Your task to perform on an android device: What's the news this week? Image 0: 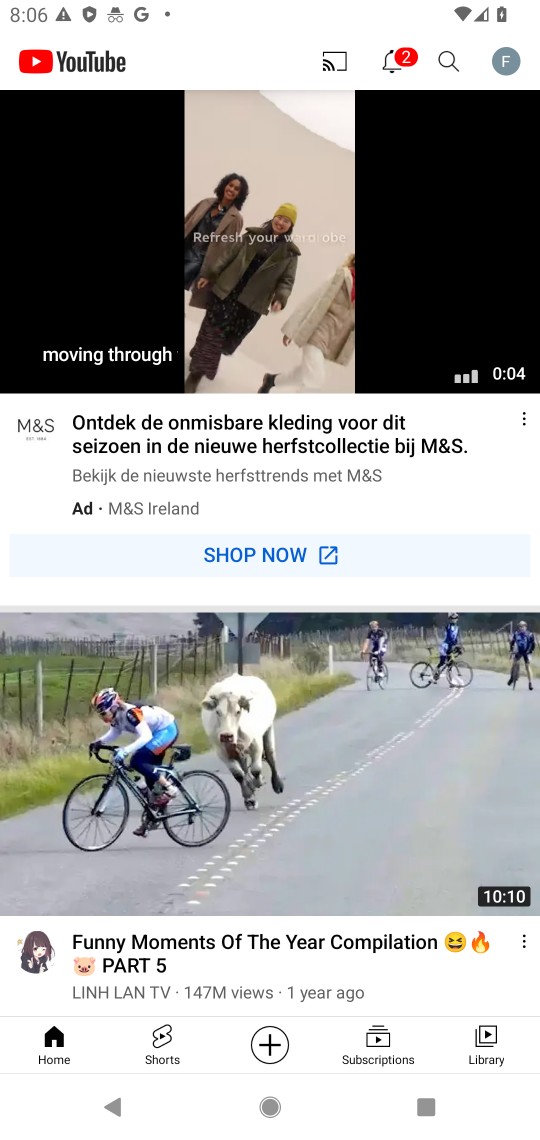
Step 0: drag from (449, 717) to (449, 530)
Your task to perform on an android device: What's the news this week? Image 1: 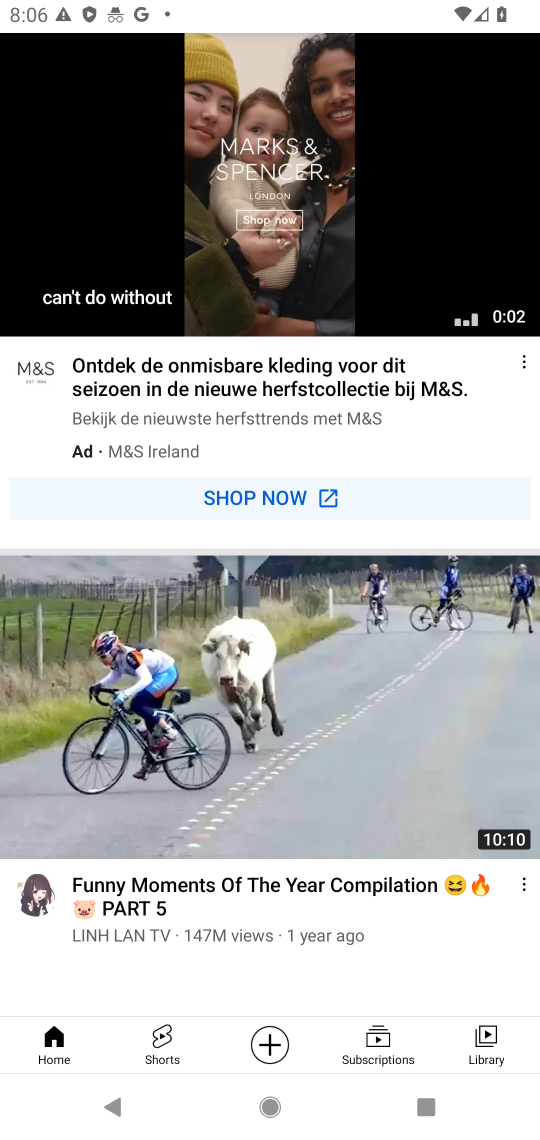
Step 1: press home button
Your task to perform on an android device: What's the news this week? Image 2: 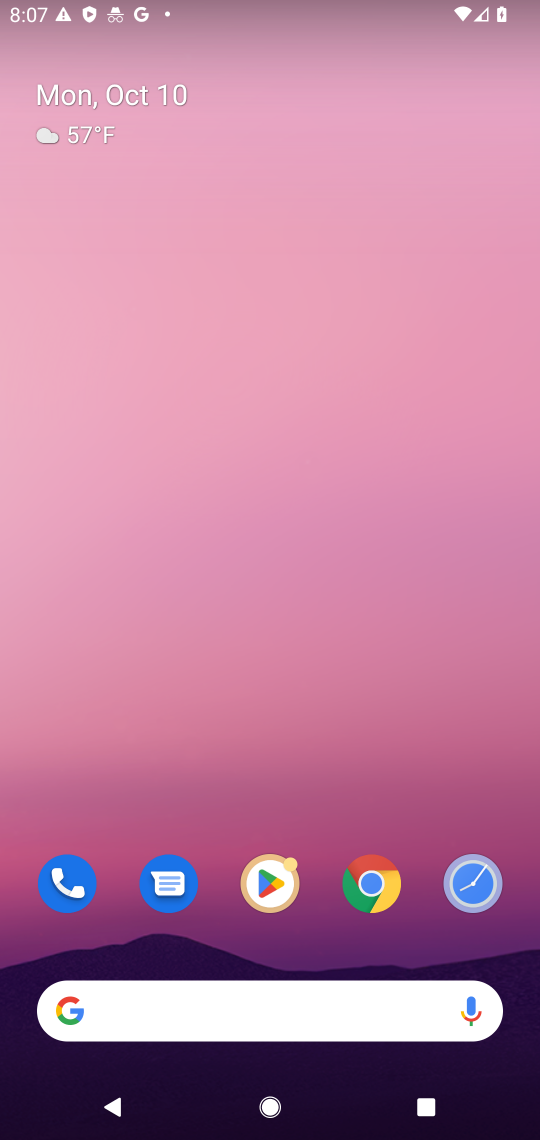
Step 2: drag from (354, 1020) to (314, 469)
Your task to perform on an android device: What's the news this week? Image 3: 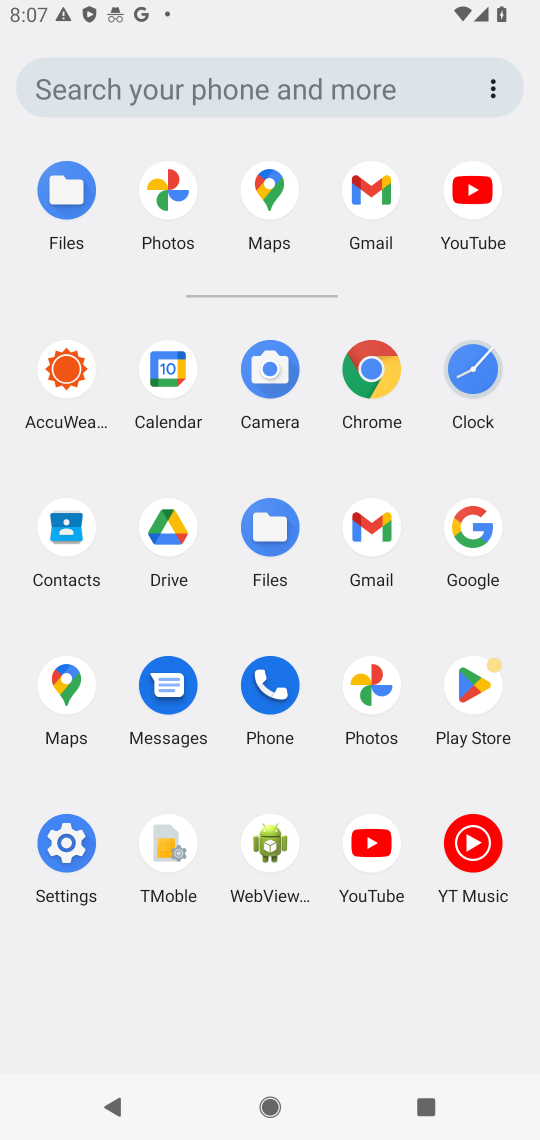
Step 3: click (455, 561)
Your task to perform on an android device: What's the news this week? Image 4: 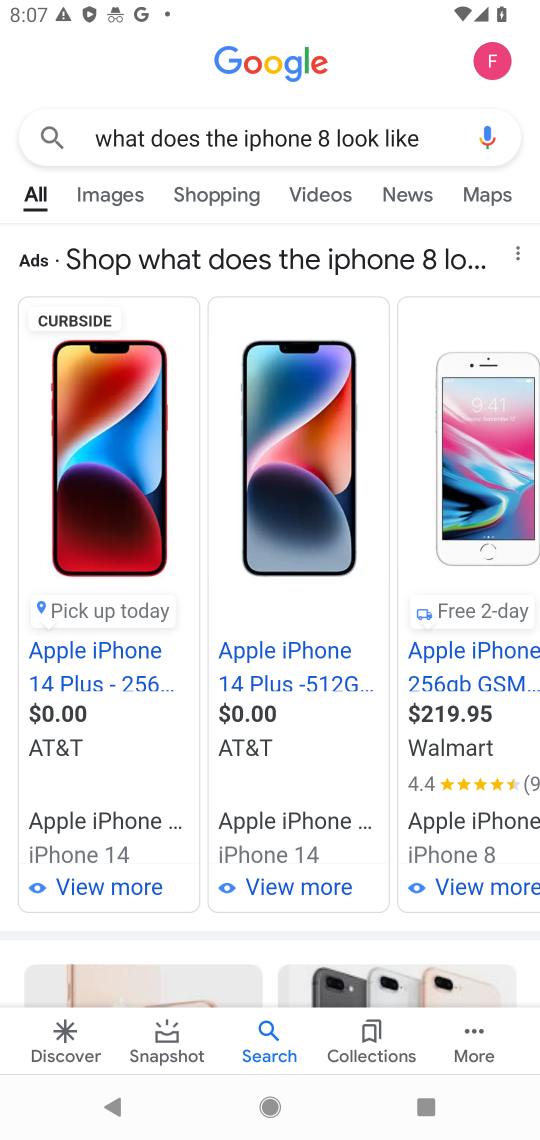
Step 4: click (407, 141)
Your task to perform on an android device: What's the news this week? Image 5: 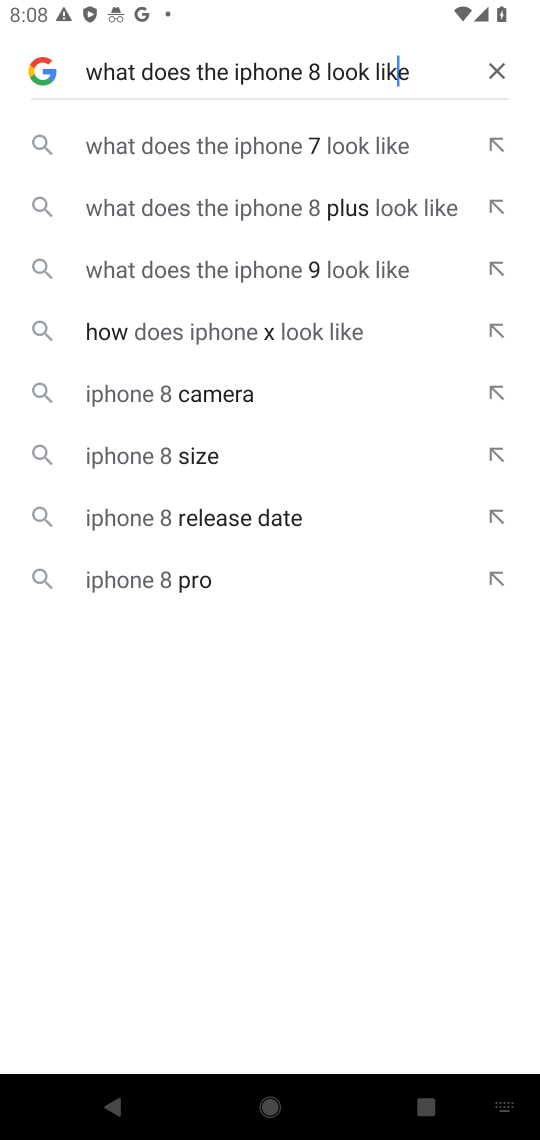
Step 5: click (498, 73)
Your task to perform on an android device: What's the news this week? Image 6: 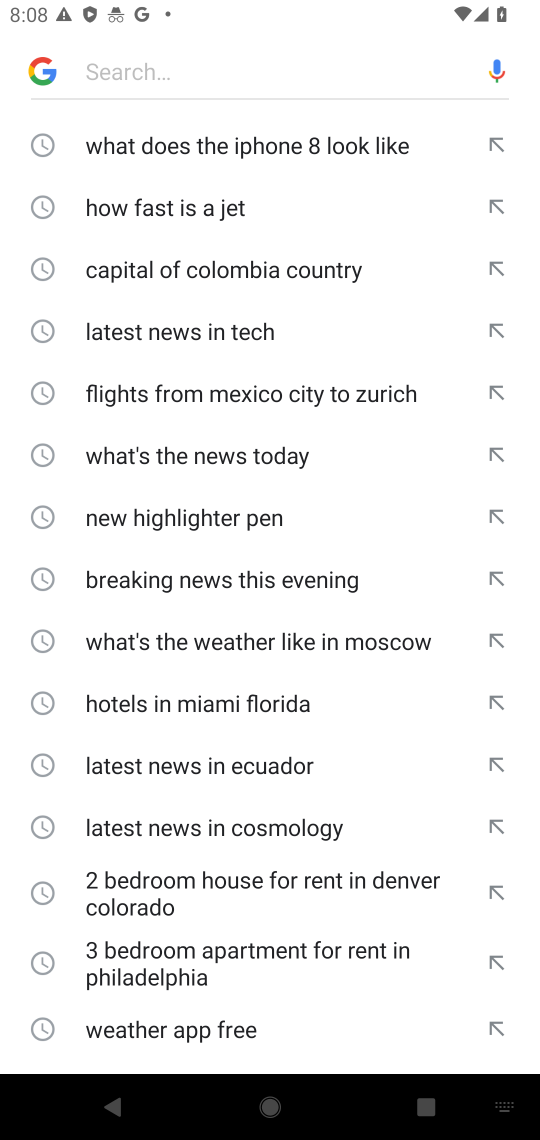
Step 6: type "news this week"
Your task to perform on an android device: What's the news this week? Image 7: 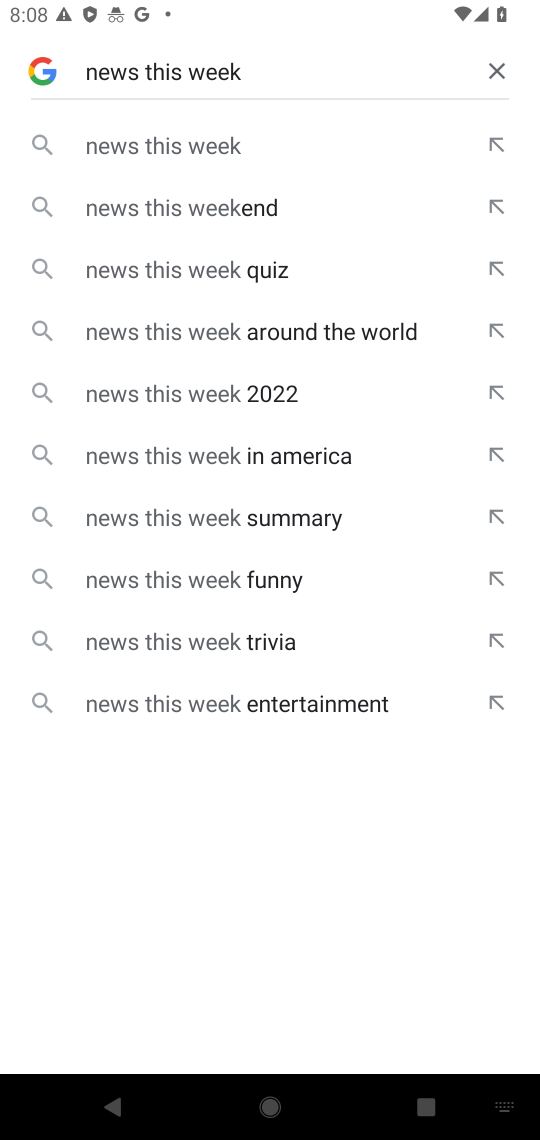
Step 7: click (196, 152)
Your task to perform on an android device: What's the news this week? Image 8: 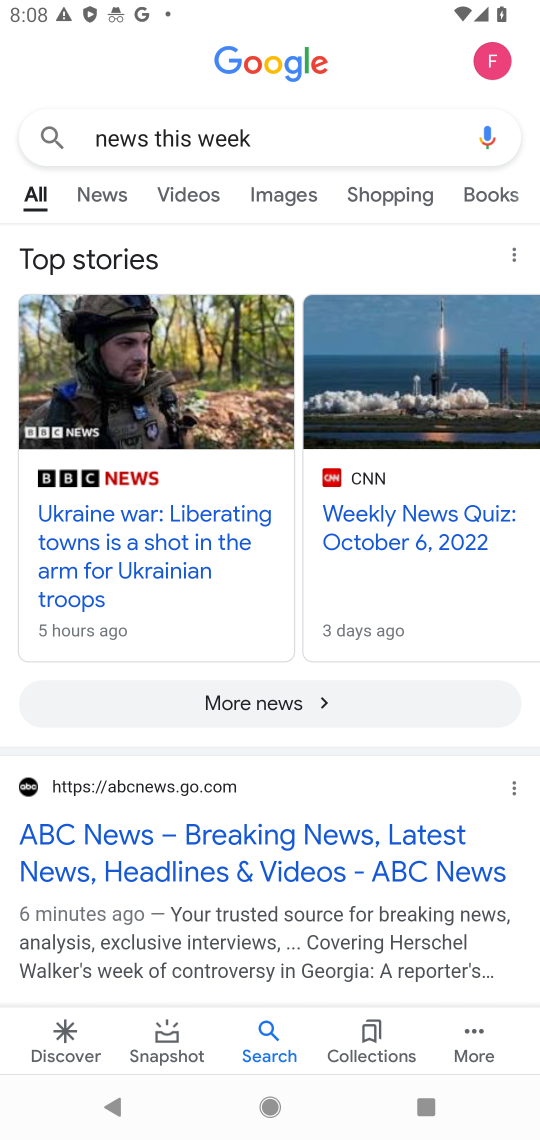
Step 8: click (119, 187)
Your task to perform on an android device: What's the news this week? Image 9: 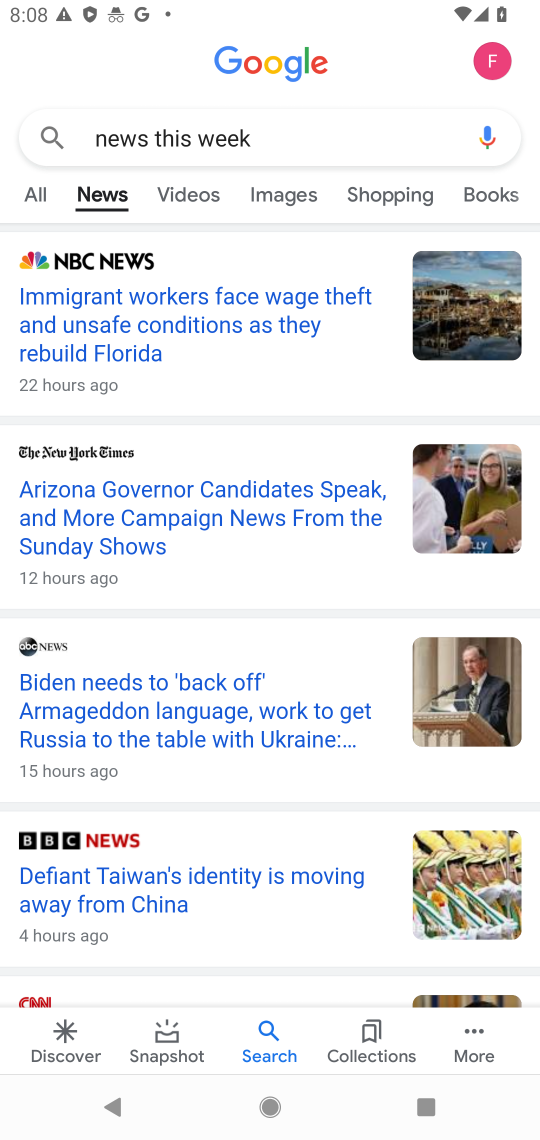
Step 9: task complete